Your task to perform on an android device: Go to Maps Image 0: 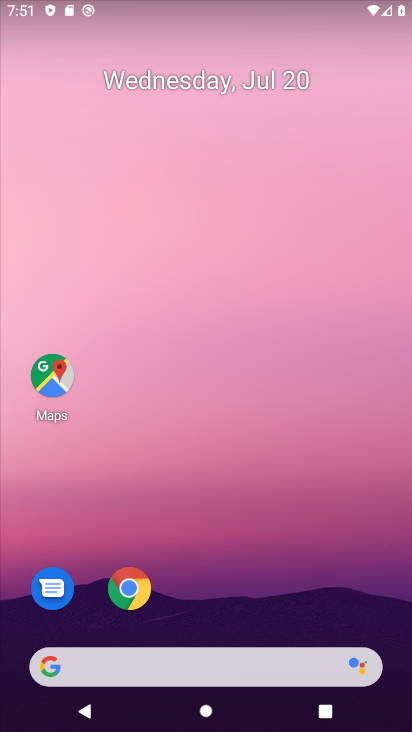
Step 0: click (46, 391)
Your task to perform on an android device: Go to Maps Image 1: 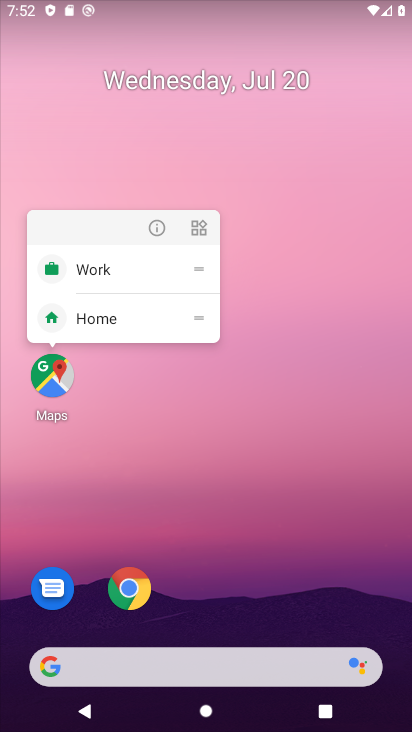
Step 1: click (45, 380)
Your task to perform on an android device: Go to Maps Image 2: 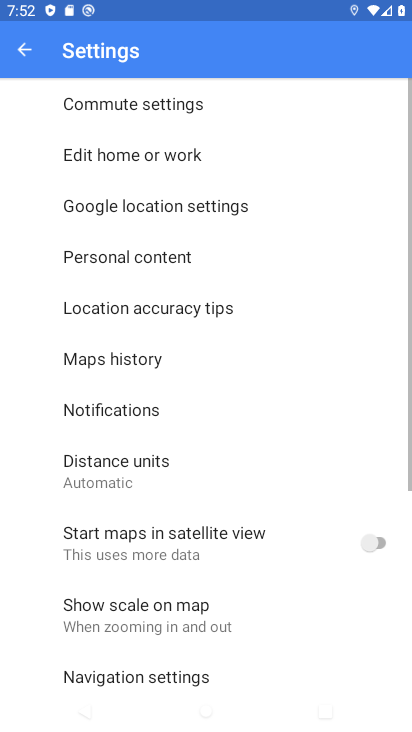
Step 2: click (23, 57)
Your task to perform on an android device: Go to Maps Image 3: 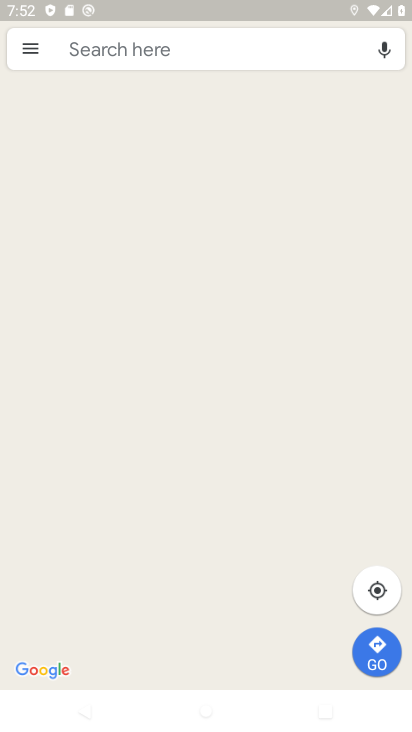
Step 3: task complete